Your task to perform on an android device: search for starred emails in the gmail app Image 0: 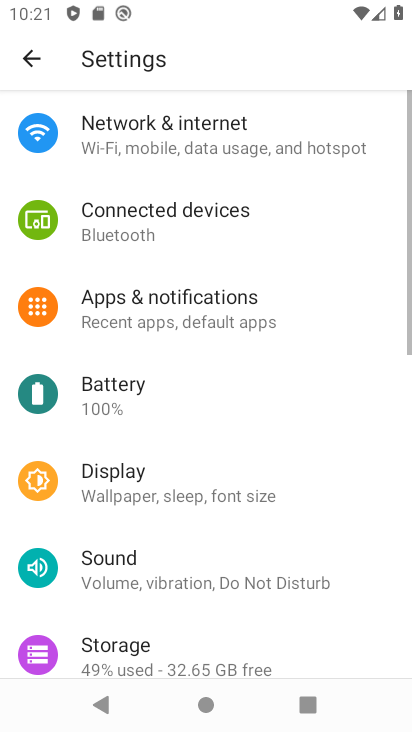
Step 0: press home button
Your task to perform on an android device: search for starred emails in the gmail app Image 1: 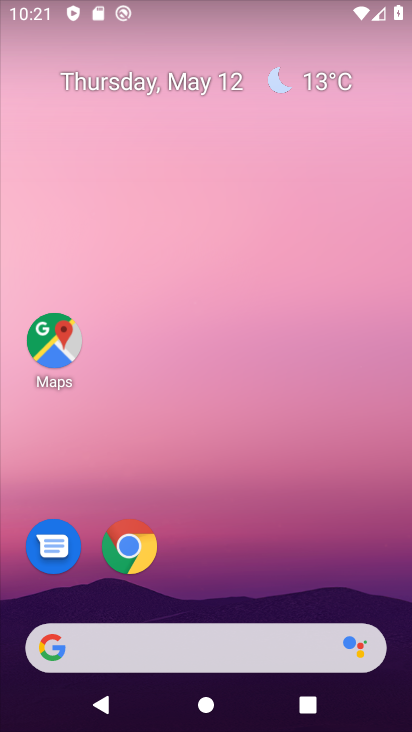
Step 1: drag from (298, 664) to (397, 96)
Your task to perform on an android device: search for starred emails in the gmail app Image 2: 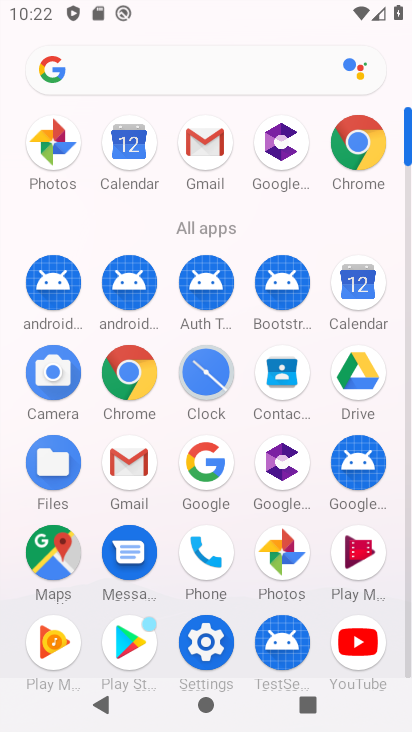
Step 2: click (134, 457)
Your task to perform on an android device: search for starred emails in the gmail app Image 3: 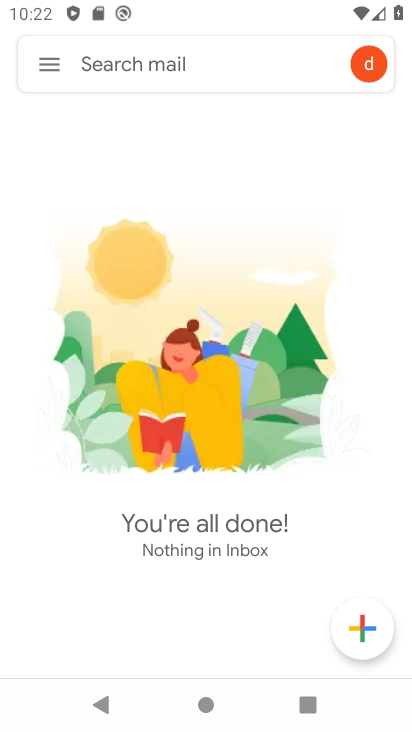
Step 3: click (39, 70)
Your task to perform on an android device: search for starred emails in the gmail app Image 4: 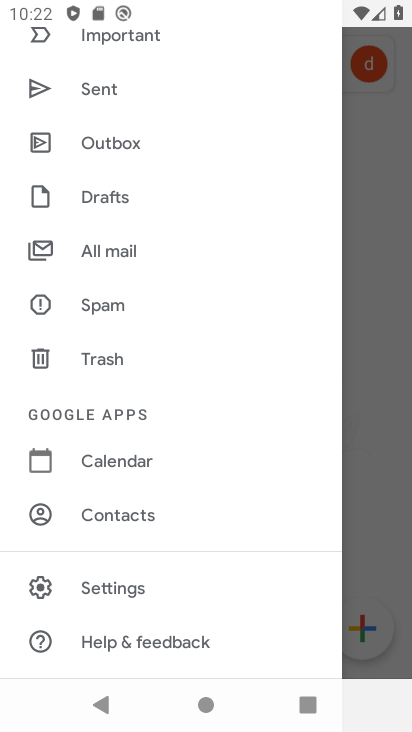
Step 4: drag from (162, 144) to (213, 298)
Your task to perform on an android device: search for starred emails in the gmail app Image 5: 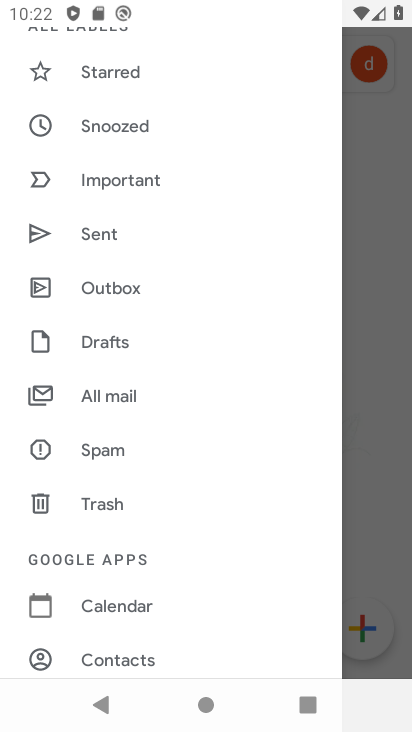
Step 5: click (110, 80)
Your task to perform on an android device: search for starred emails in the gmail app Image 6: 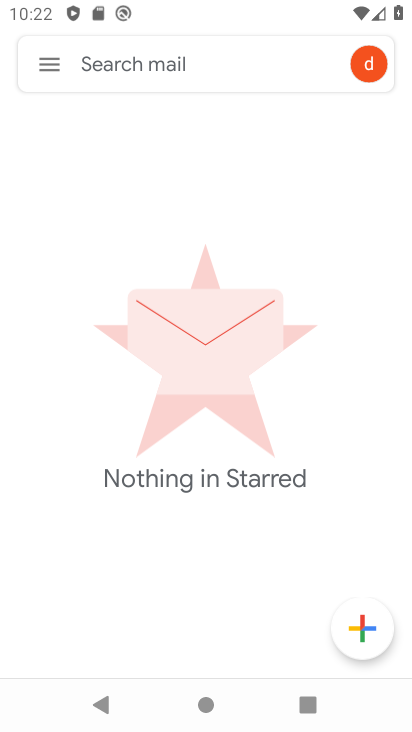
Step 6: task complete